Your task to perform on an android device: Open Google Maps Image 0: 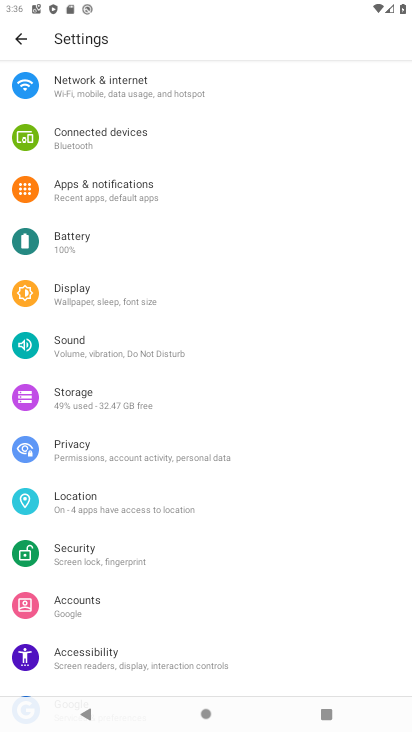
Step 0: press home button
Your task to perform on an android device: Open Google Maps Image 1: 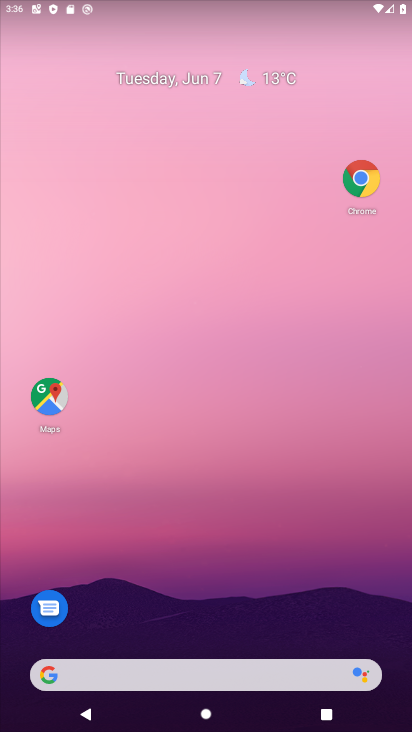
Step 1: click (49, 397)
Your task to perform on an android device: Open Google Maps Image 2: 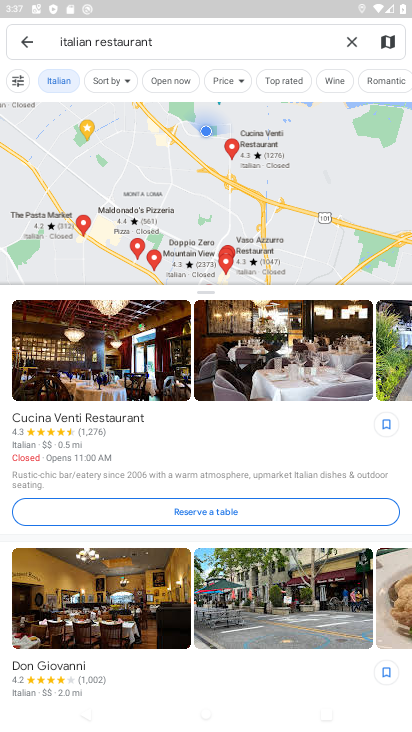
Step 2: task complete